Your task to perform on an android device: Open calendar and show me the third week of next month Image 0: 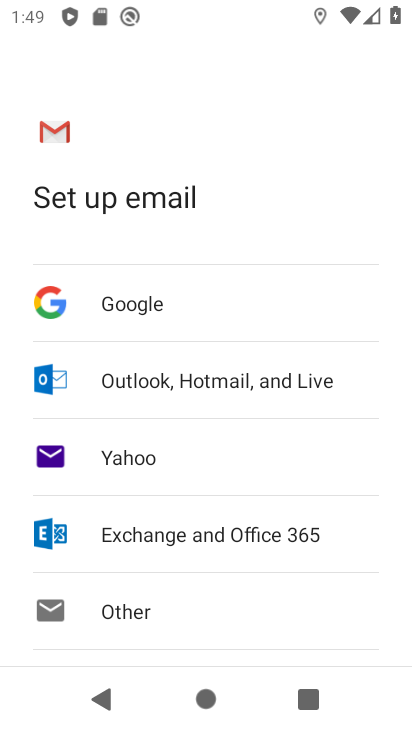
Step 0: press back button
Your task to perform on an android device: Open calendar and show me the third week of next month Image 1: 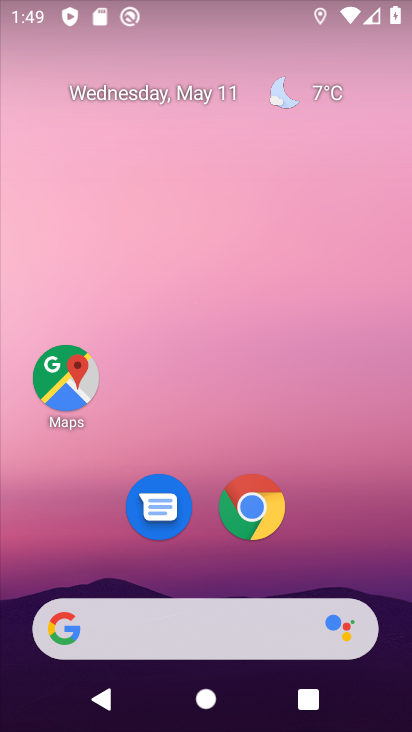
Step 1: drag from (301, 569) to (296, 14)
Your task to perform on an android device: Open calendar and show me the third week of next month Image 2: 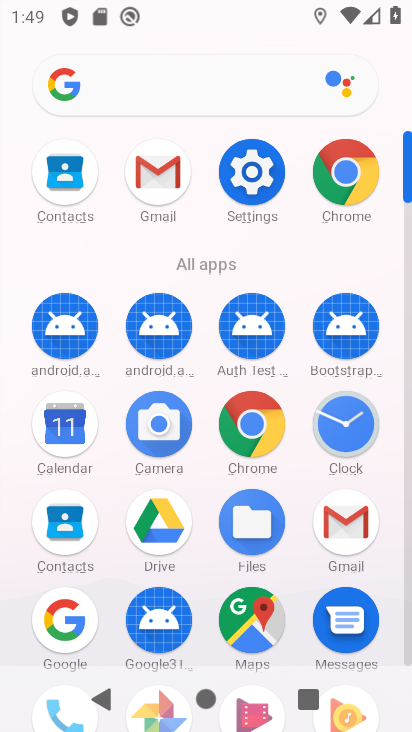
Step 2: click (66, 423)
Your task to perform on an android device: Open calendar and show me the third week of next month Image 3: 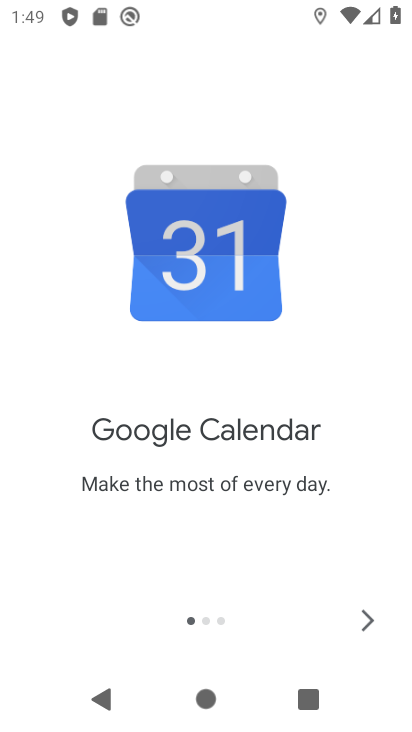
Step 3: click (367, 616)
Your task to perform on an android device: Open calendar and show me the third week of next month Image 4: 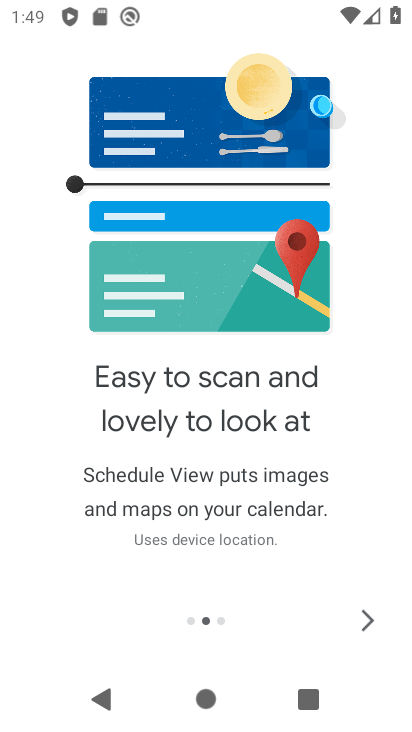
Step 4: click (367, 616)
Your task to perform on an android device: Open calendar and show me the third week of next month Image 5: 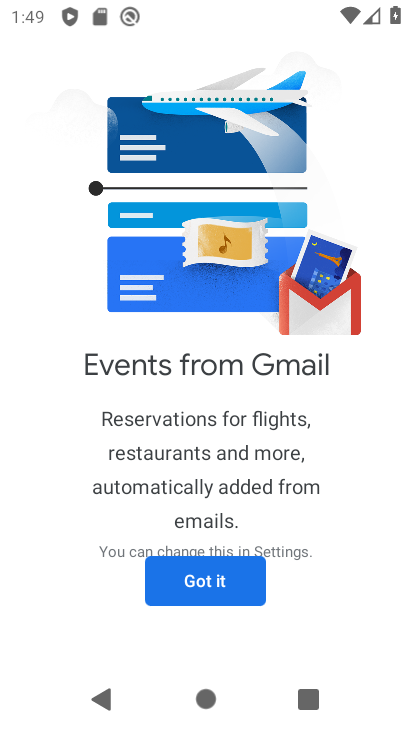
Step 5: click (218, 570)
Your task to perform on an android device: Open calendar and show me the third week of next month Image 6: 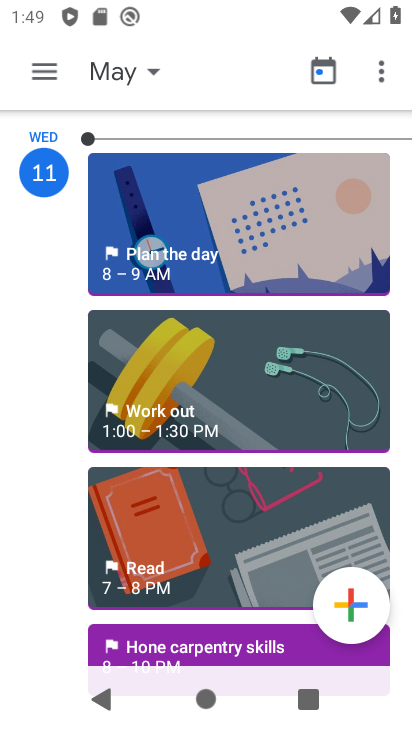
Step 6: click (126, 63)
Your task to perform on an android device: Open calendar and show me the third week of next month Image 7: 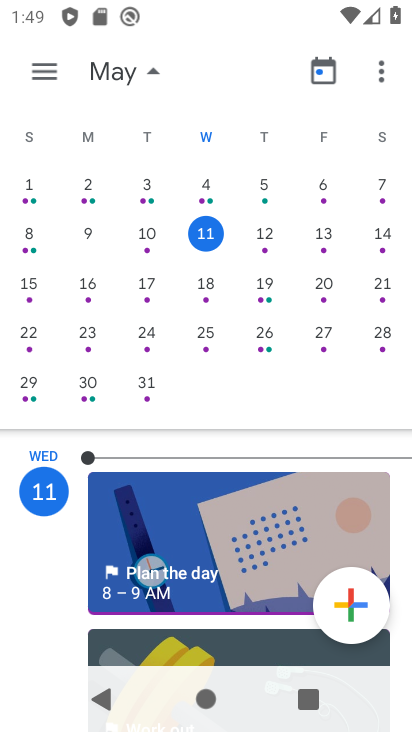
Step 7: drag from (380, 293) to (4, 276)
Your task to perform on an android device: Open calendar and show me the third week of next month Image 8: 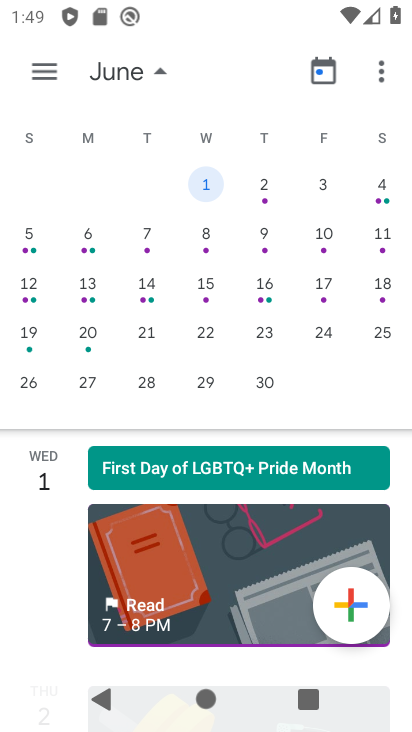
Step 8: click (28, 285)
Your task to perform on an android device: Open calendar and show me the third week of next month Image 9: 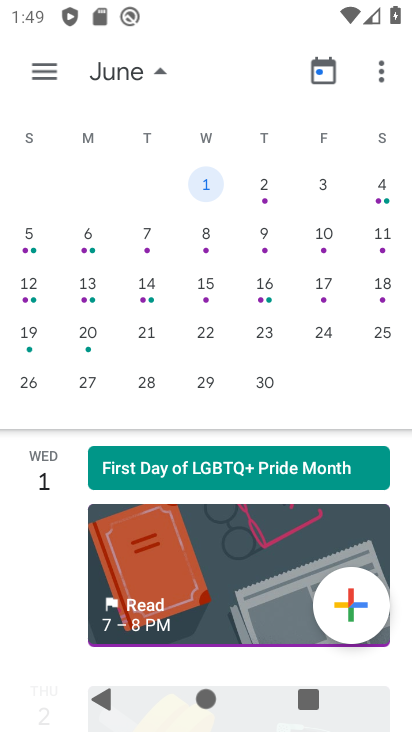
Step 9: click (30, 281)
Your task to perform on an android device: Open calendar and show me the third week of next month Image 10: 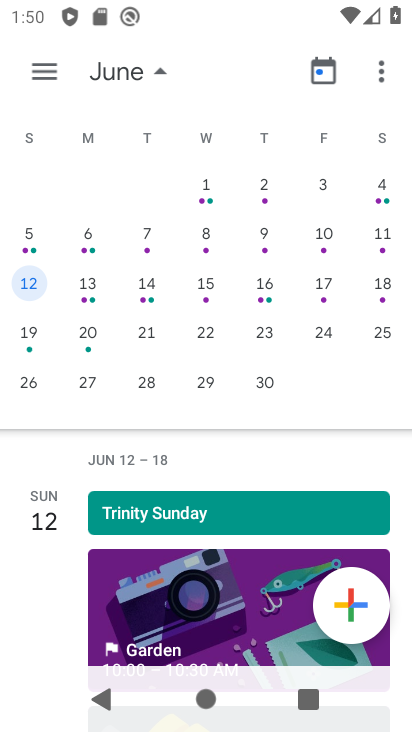
Step 10: click (38, 66)
Your task to perform on an android device: Open calendar and show me the third week of next month Image 11: 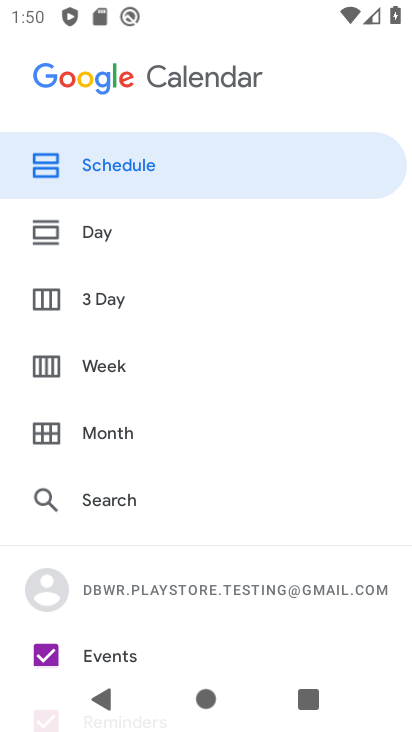
Step 11: click (127, 230)
Your task to perform on an android device: Open calendar and show me the third week of next month Image 12: 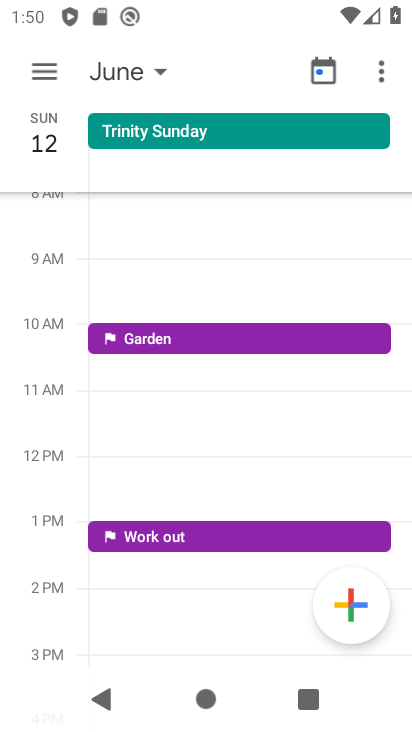
Step 12: click (46, 77)
Your task to perform on an android device: Open calendar and show me the third week of next month Image 13: 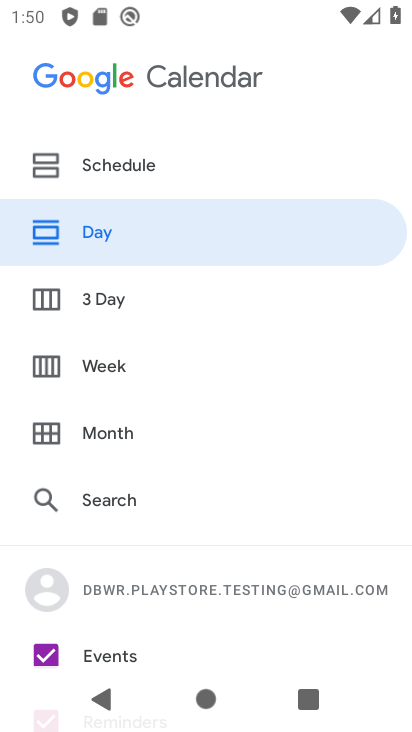
Step 13: click (113, 363)
Your task to perform on an android device: Open calendar and show me the third week of next month Image 14: 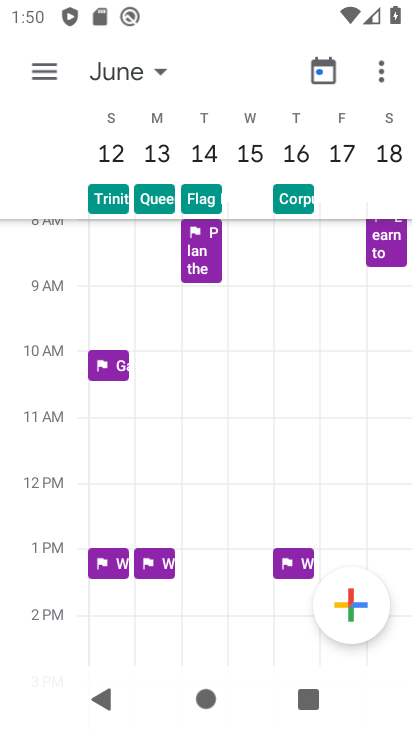
Step 14: task complete